Your task to perform on an android device: install app "eBay: The shopping marketplace" Image 0: 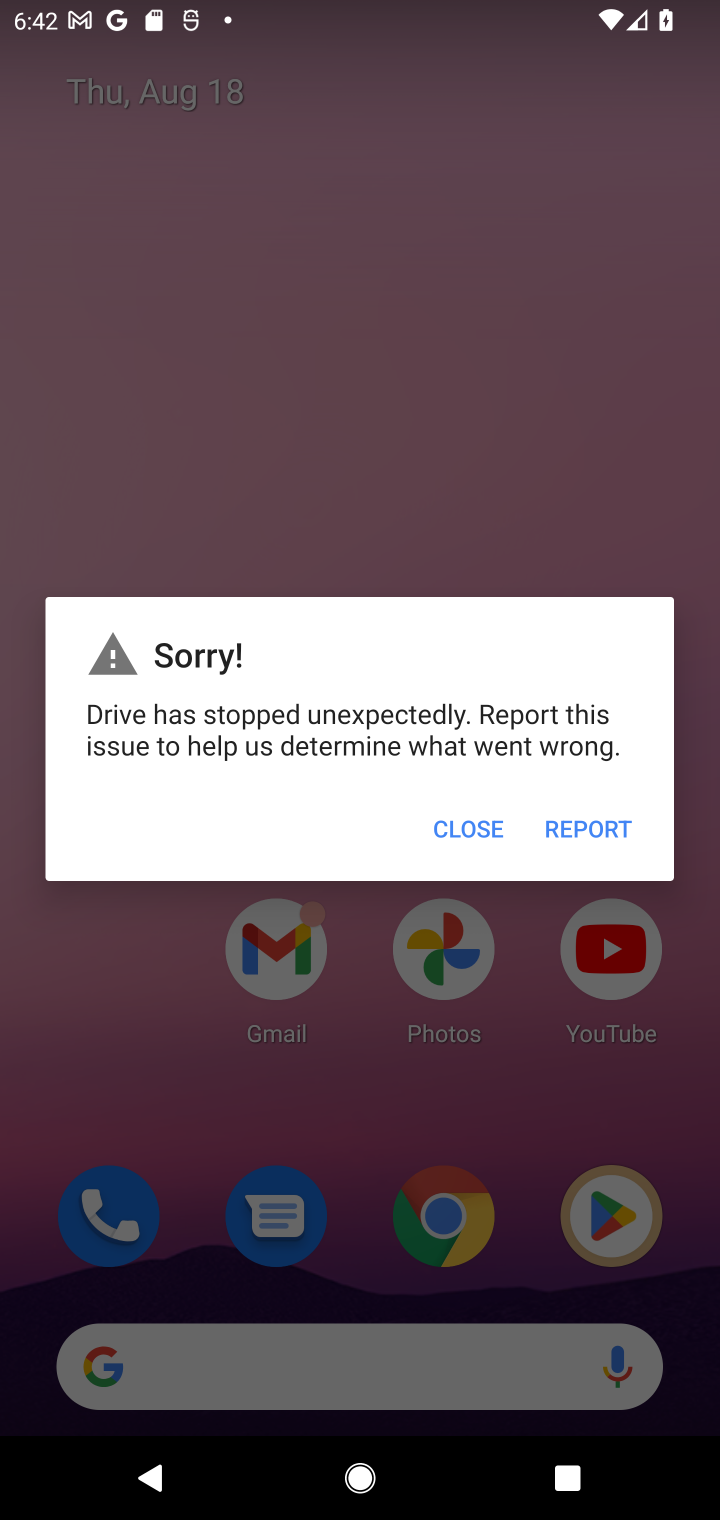
Step 0: press home button
Your task to perform on an android device: install app "eBay: The shopping marketplace" Image 1: 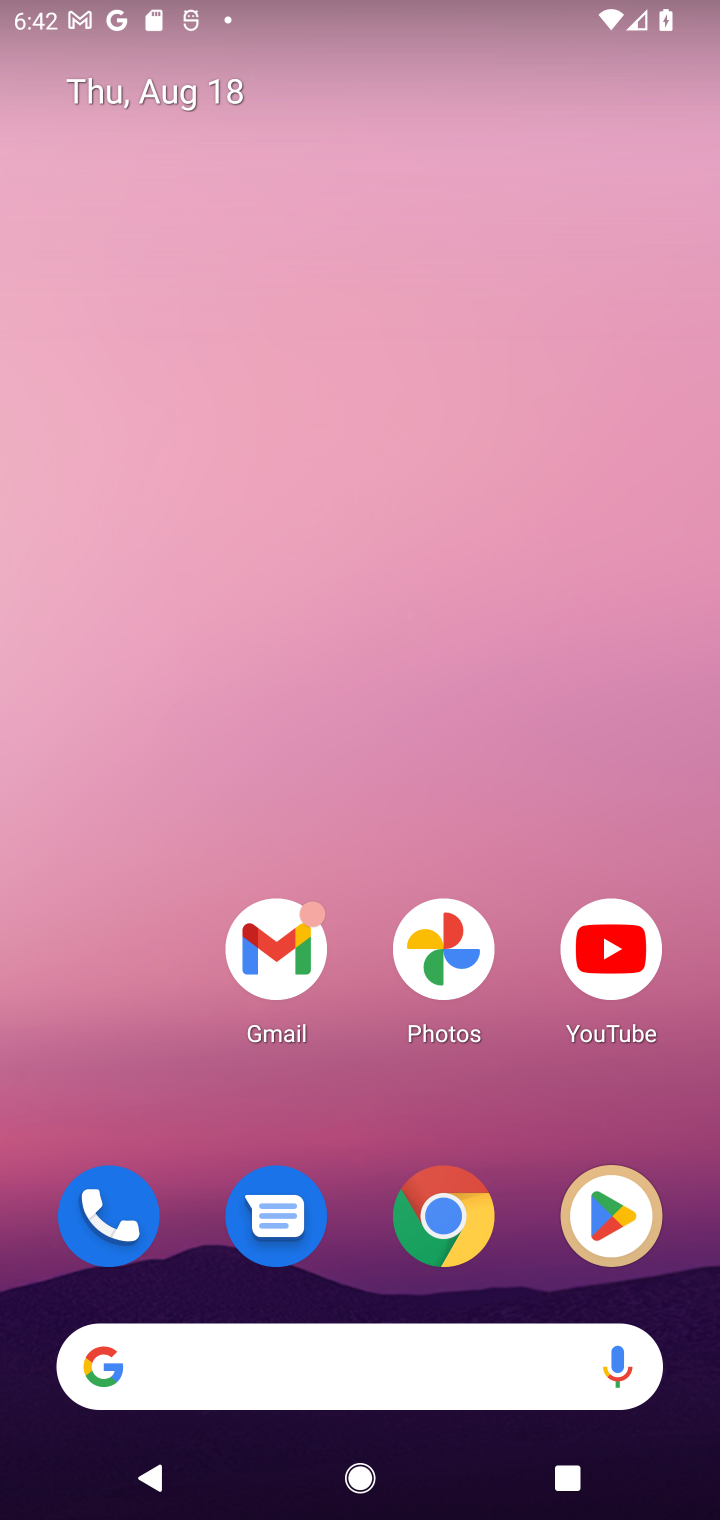
Step 1: click (617, 1219)
Your task to perform on an android device: install app "eBay: The shopping marketplace" Image 2: 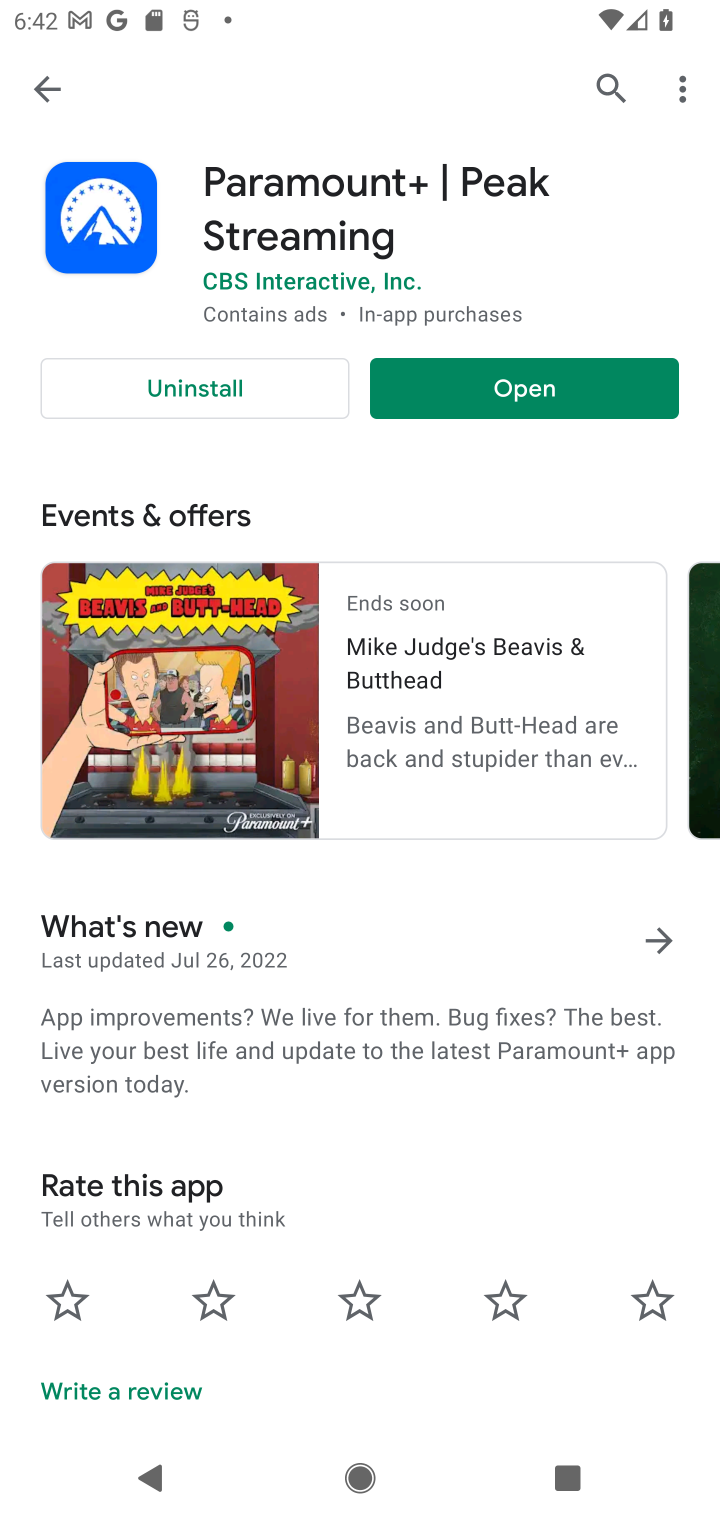
Step 2: click (608, 87)
Your task to perform on an android device: install app "eBay: The shopping marketplace" Image 3: 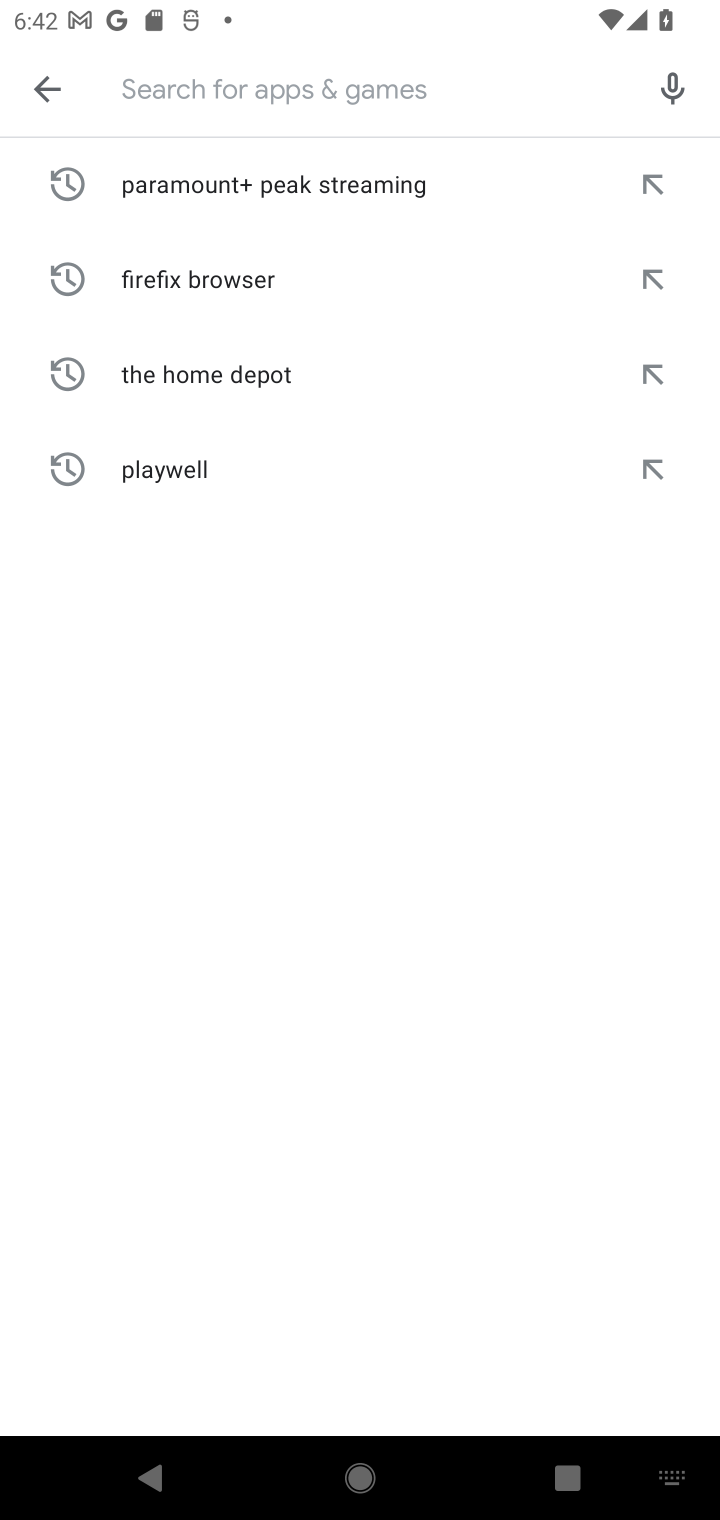
Step 3: type "eBay: The shopping marketplace"
Your task to perform on an android device: install app "eBay: The shopping marketplace" Image 4: 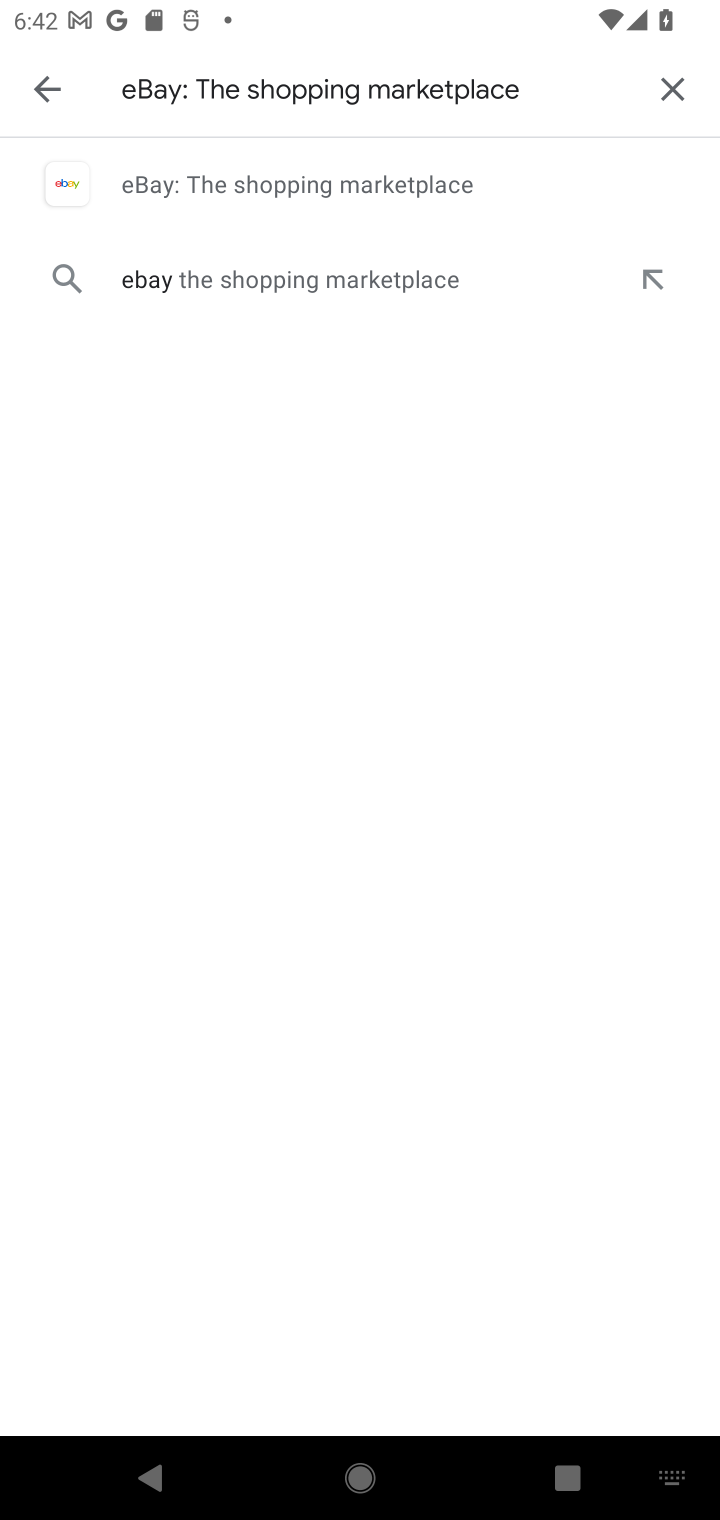
Step 4: click (281, 184)
Your task to perform on an android device: install app "eBay: The shopping marketplace" Image 5: 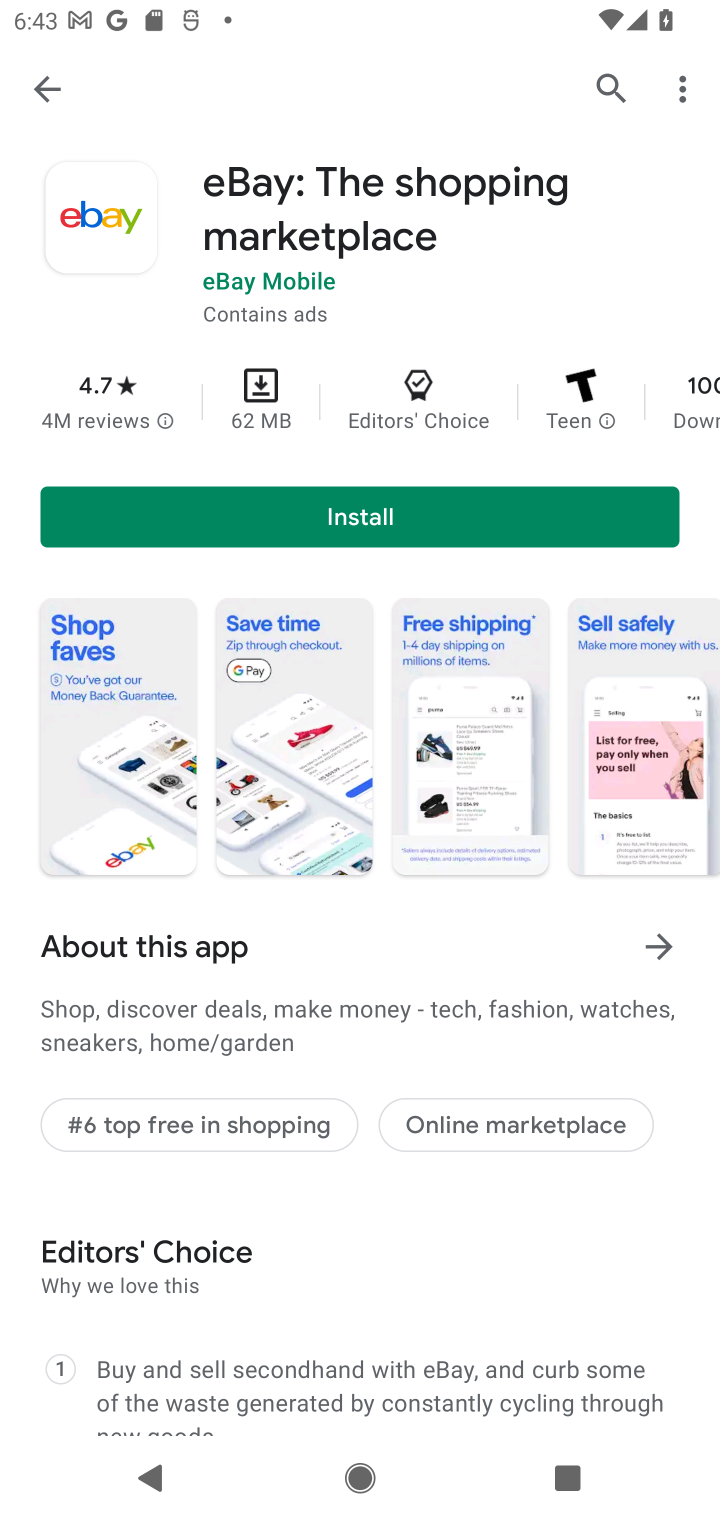
Step 5: click (368, 510)
Your task to perform on an android device: install app "eBay: The shopping marketplace" Image 6: 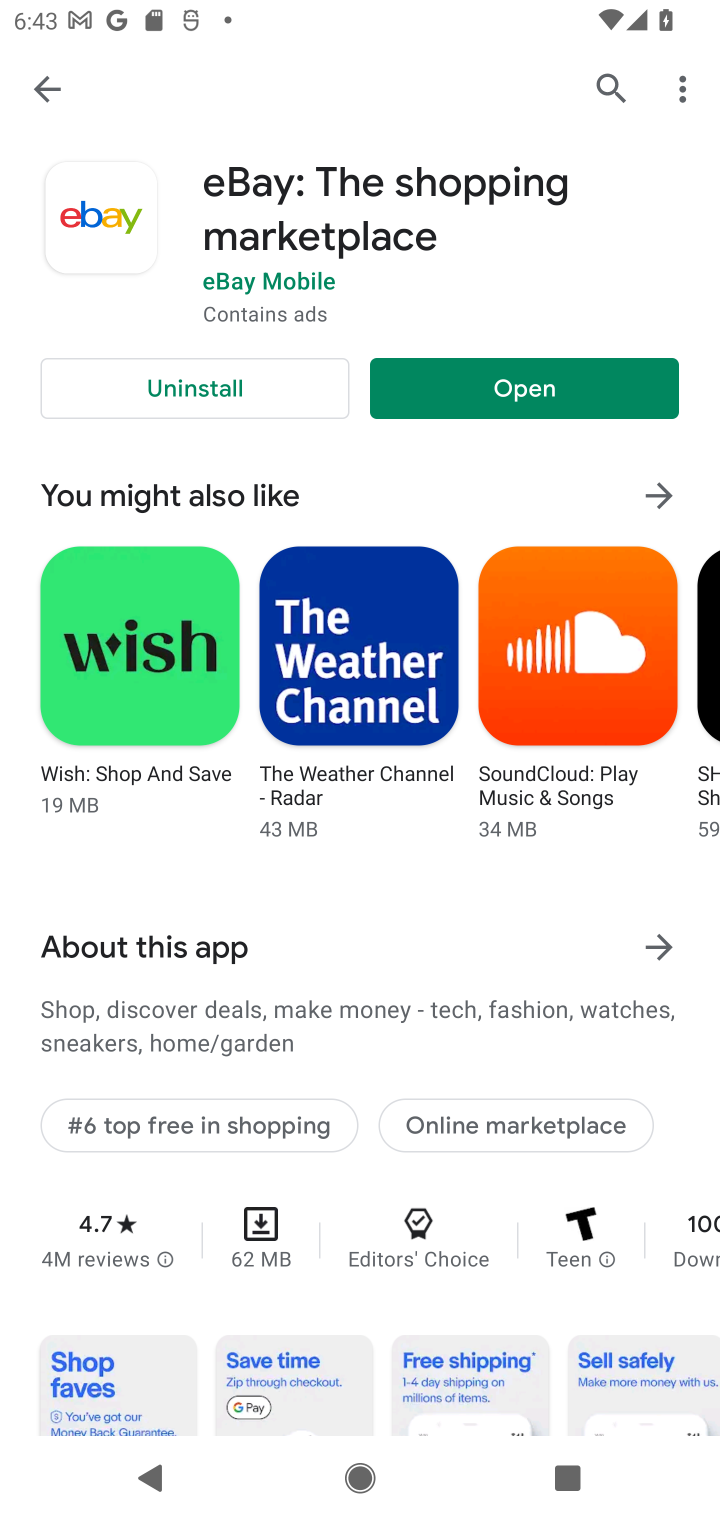
Step 6: task complete